Your task to perform on an android device: turn on airplane mode Image 0: 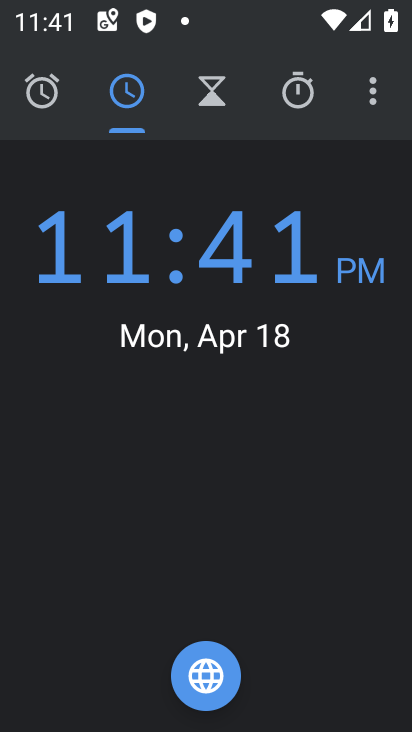
Step 0: press home button
Your task to perform on an android device: turn on airplane mode Image 1: 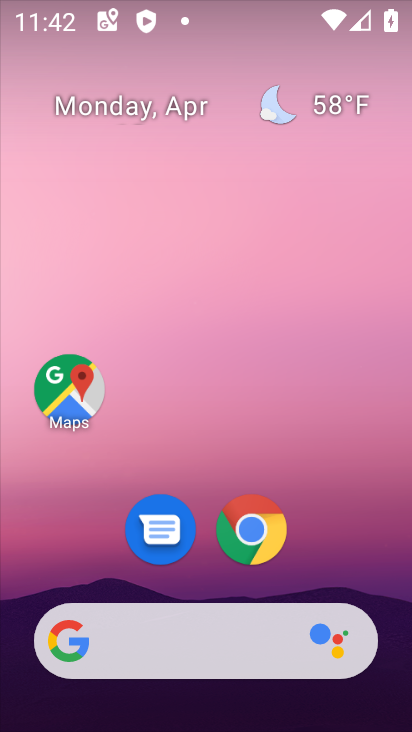
Step 1: drag from (238, 2) to (316, 417)
Your task to perform on an android device: turn on airplane mode Image 2: 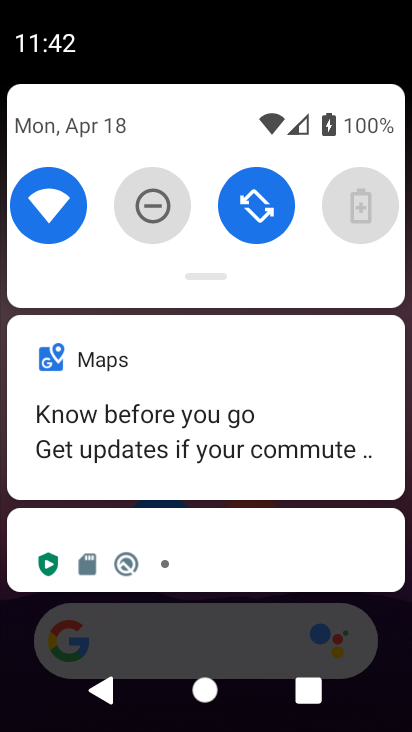
Step 2: drag from (356, 244) to (4, 223)
Your task to perform on an android device: turn on airplane mode Image 3: 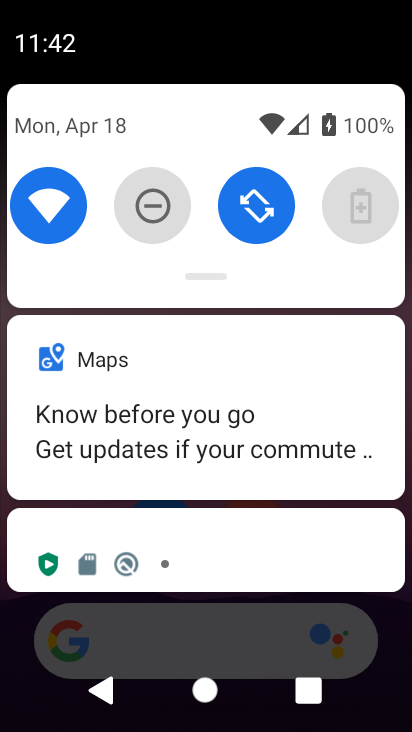
Step 3: drag from (259, 248) to (332, 602)
Your task to perform on an android device: turn on airplane mode Image 4: 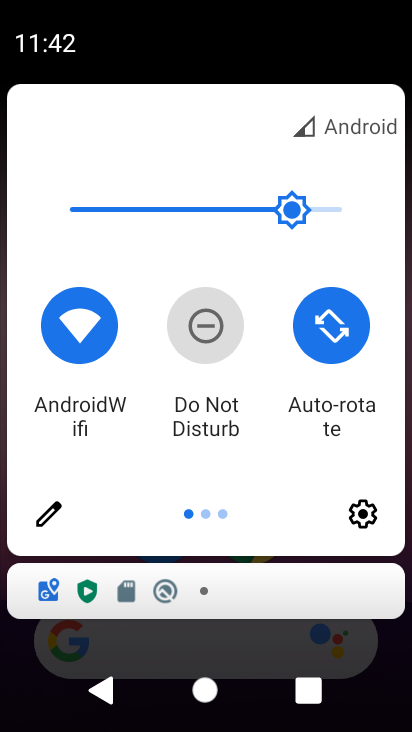
Step 4: drag from (330, 435) to (5, 412)
Your task to perform on an android device: turn on airplane mode Image 5: 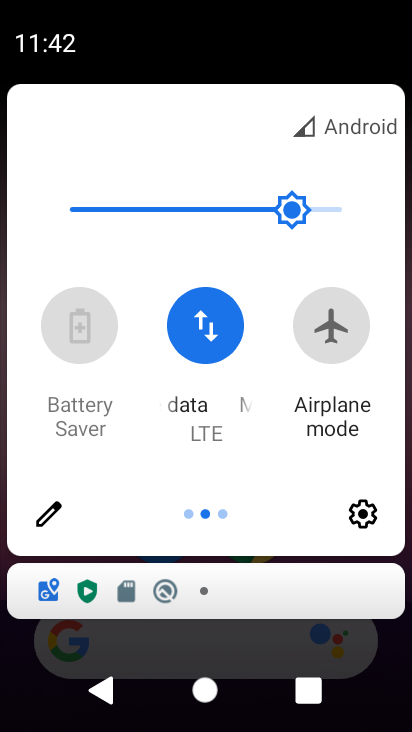
Step 5: click (320, 331)
Your task to perform on an android device: turn on airplane mode Image 6: 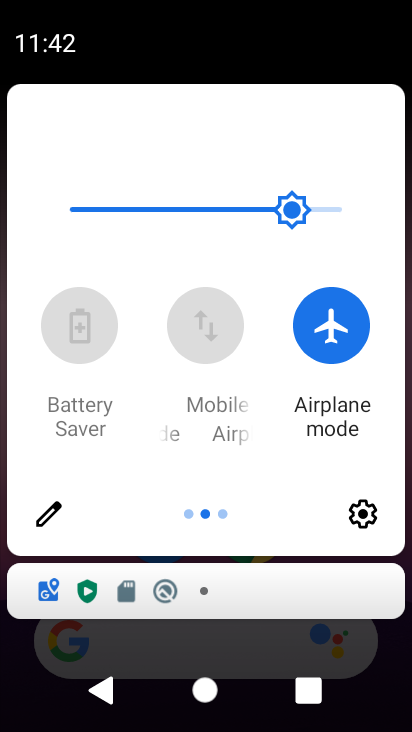
Step 6: task complete